Your task to perform on an android device: Go to Wikipedia Image 0: 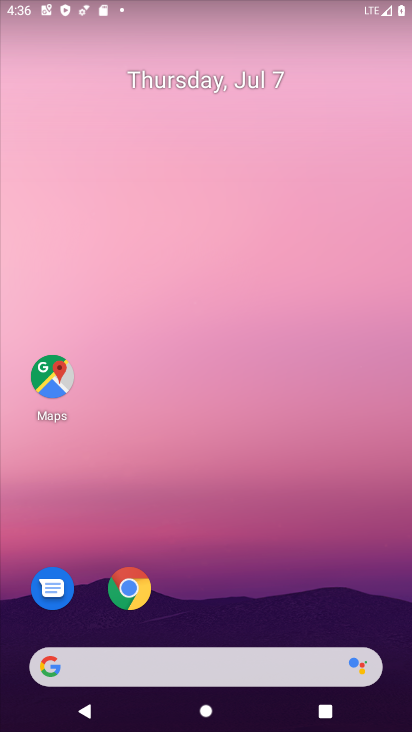
Step 0: drag from (218, 667) to (198, 15)
Your task to perform on an android device: Go to Wikipedia Image 1: 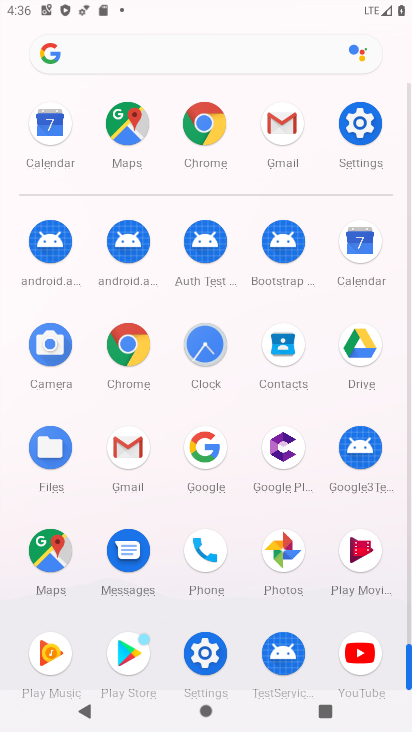
Step 1: click (111, 345)
Your task to perform on an android device: Go to Wikipedia Image 2: 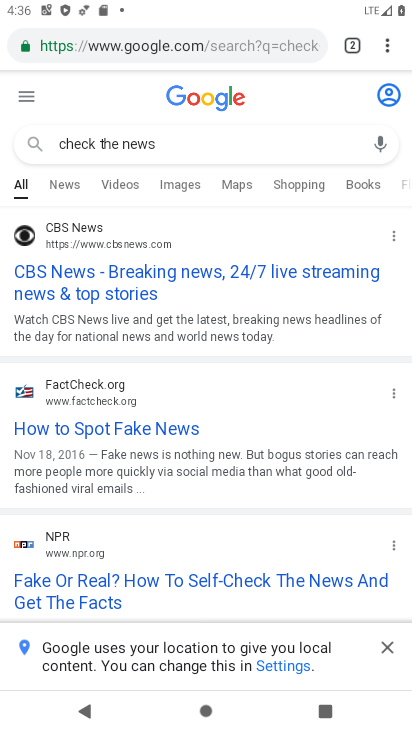
Step 2: drag from (387, 42) to (338, 86)
Your task to perform on an android device: Go to Wikipedia Image 3: 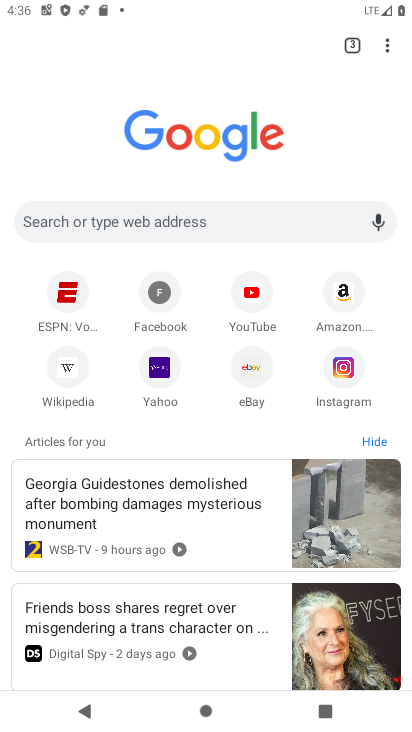
Step 3: click (77, 373)
Your task to perform on an android device: Go to Wikipedia Image 4: 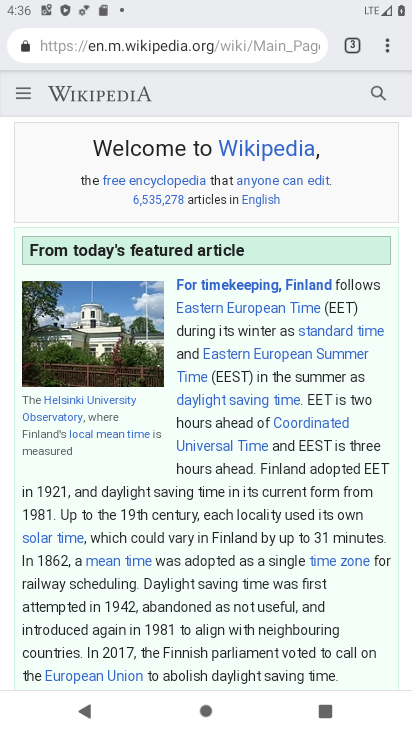
Step 4: task complete